Your task to perform on an android device: Show me popular games on the Play Store Image 0: 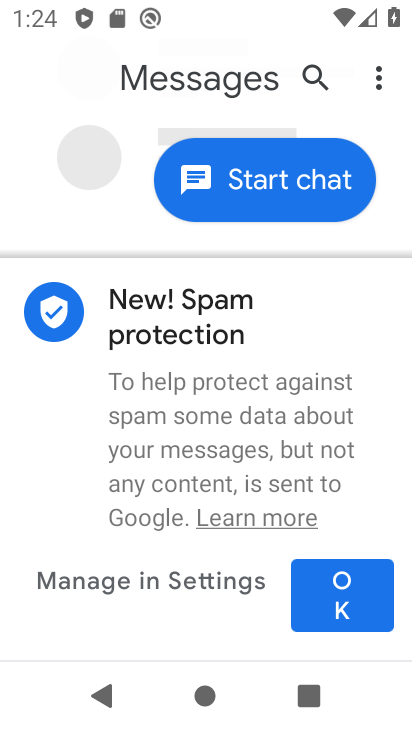
Step 0: press back button
Your task to perform on an android device: Show me popular games on the Play Store Image 1: 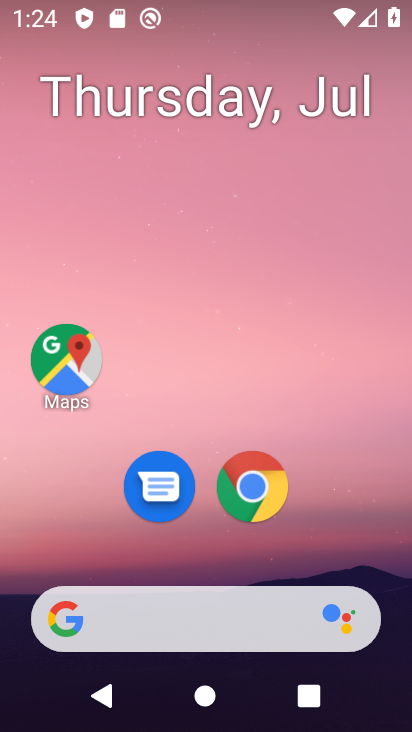
Step 1: drag from (142, 529) to (286, 50)
Your task to perform on an android device: Show me popular games on the Play Store Image 2: 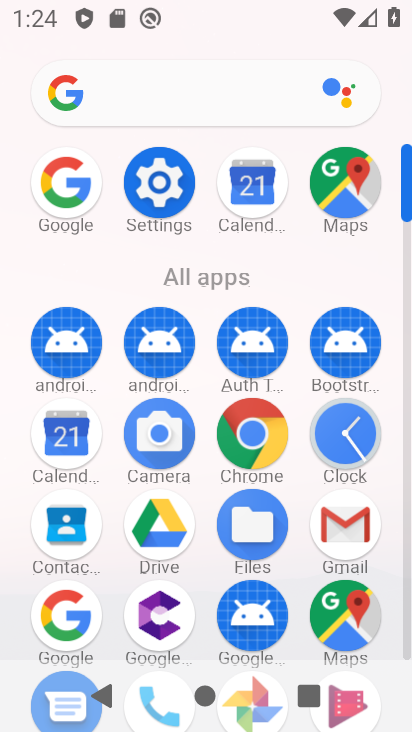
Step 2: drag from (164, 637) to (272, 127)
Your task to perform on an android device: Show me popular games on the Play Store Image 3: 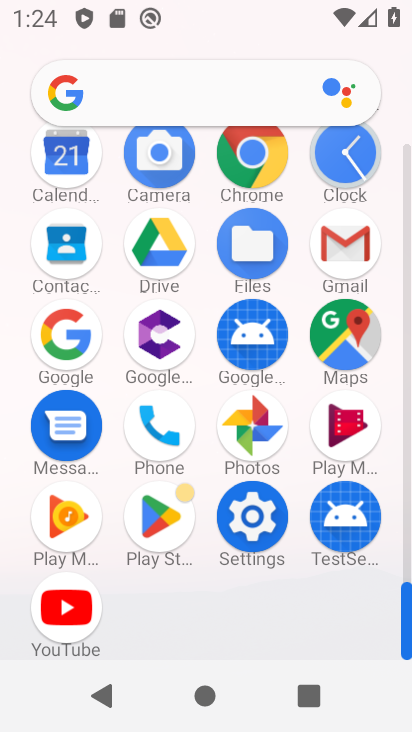
Step 3: click (140, 492)
Your task to perform on an android device: Show me popular games on the Play Store Image 4: 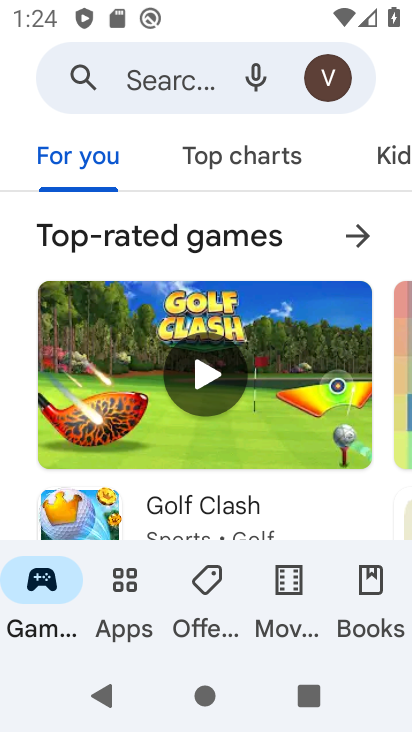
Step 4: drag from (175, 437) to (244, 92)
Your task to perform on an android device: Show me popular games on the Play Store Image 5: 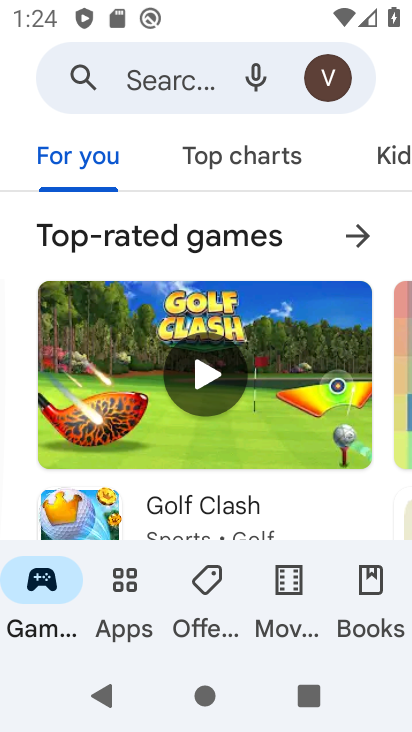
Step 5: drag from (25, 504) to (40, 170)
Your task to perform on an android device: Show me popular games on the Play Store Image 6: 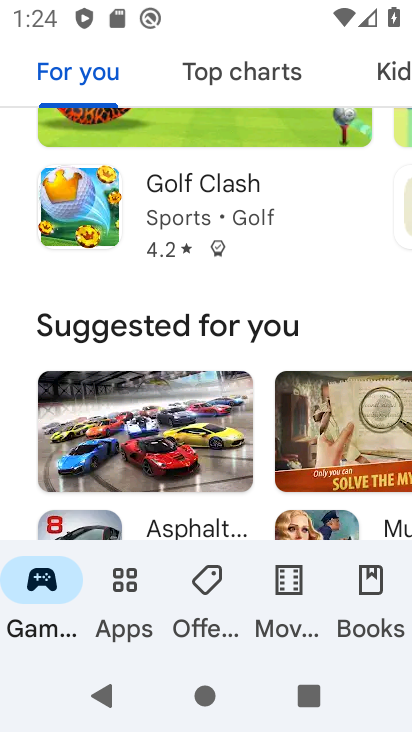
Step 6: drag from (23, 502) to (47, 55)
Your task to perform on an android device: Show me popular games on the Play Store Image 7: 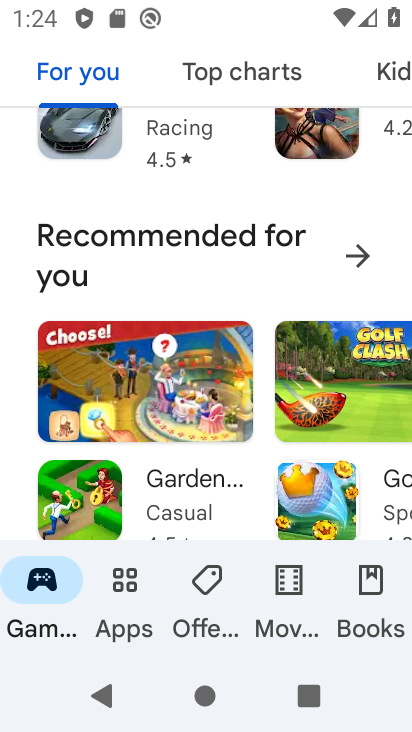
Step 7: drag from (10, 488) to (49, 40)
Your task to perform on an android device: Show me popular games on the Play Store Image 8: 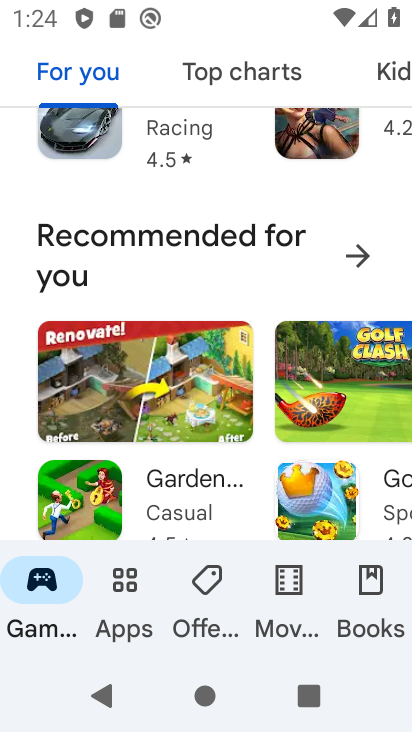
Step 8: drag from (18, 484) to (36, 108)
Your task to perform on an android device: Show me popular games on the Play Store Image 9: 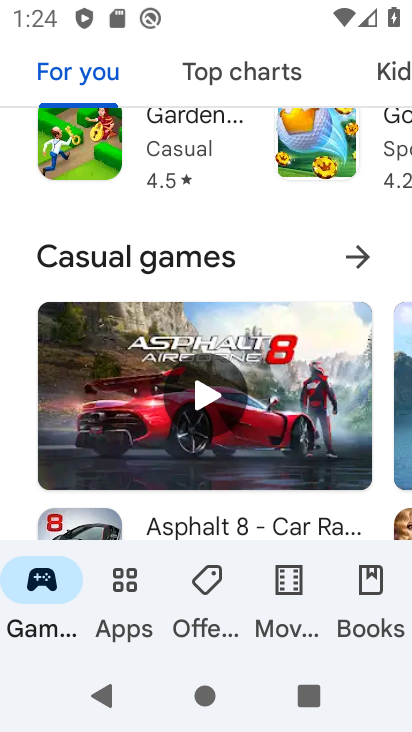
Step 9: click (10, 500)
Your task to perform on an android device: Show me popular games on the Play Store Image 10: 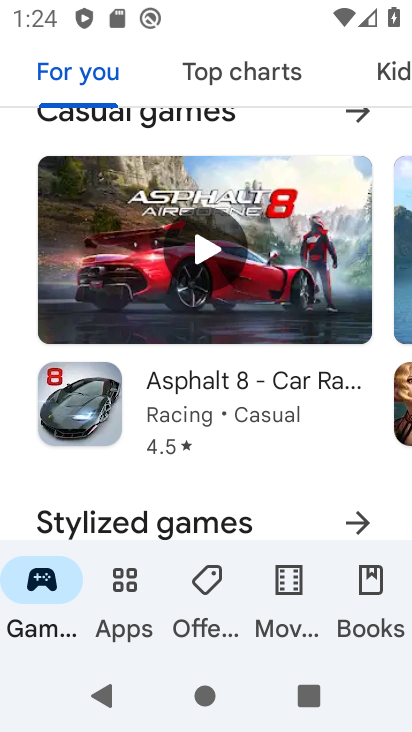
Step 10: task complete